Your task to perform on an android device: empty trash in the gmail app Image 0: 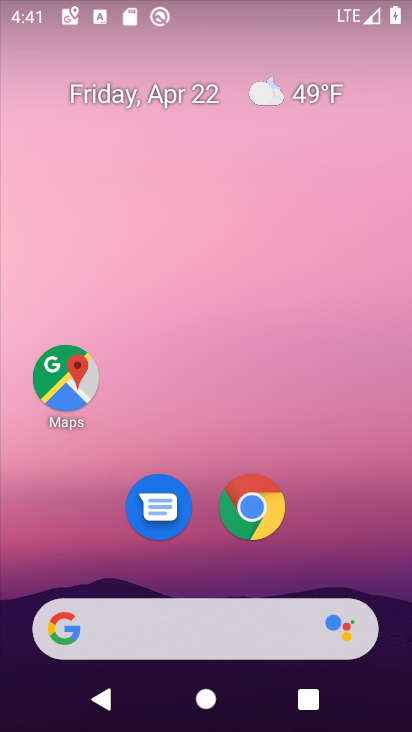
Step 0: drag from (380, 596) to (316, 8)
Your task to perform on an android device: empty trash in the gmail app Image 1: 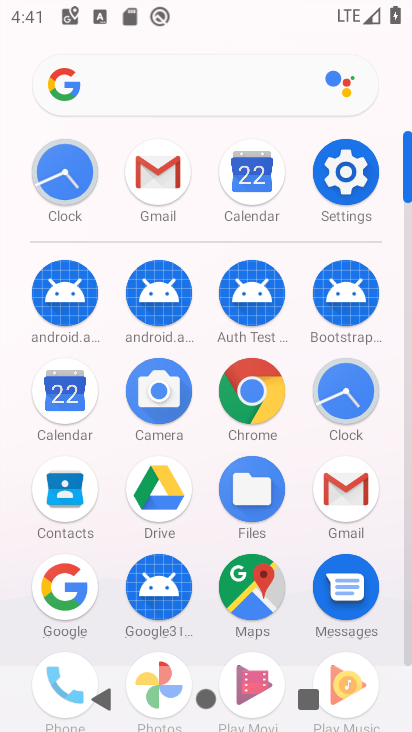
Step 1: click (408, 650)
Your task to perform on an android device: empty trash in the gmail app Image 2: 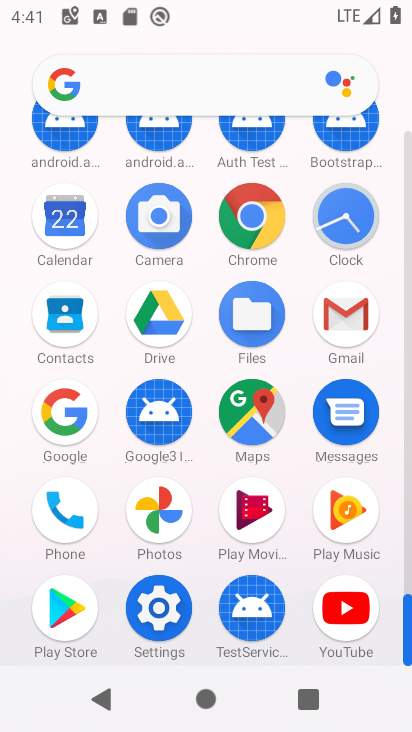
Step 2: click (349, 314)
Your task to perform on an android device: empty trash in the gmail app Image 3: 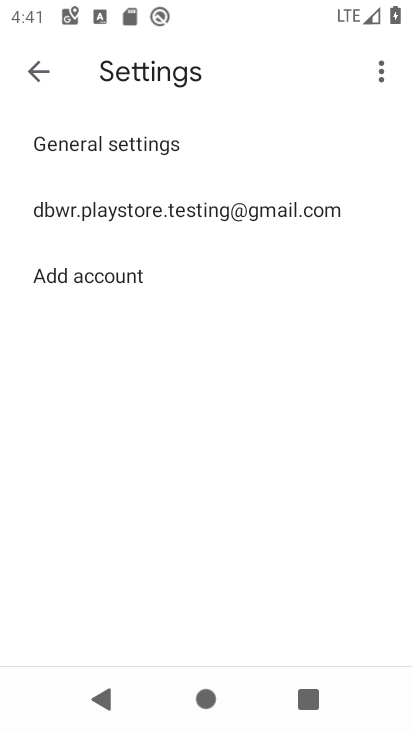
Step 3: press back button
Your task to perform on an android device: empty trash in the gmail app Image 4: 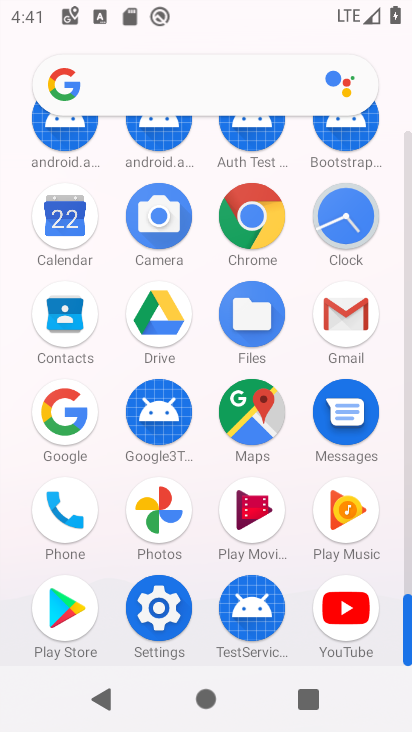
Step 4: click (353, 314)
Your task to perform on an android device: empty trash in the gmail app Image 5: 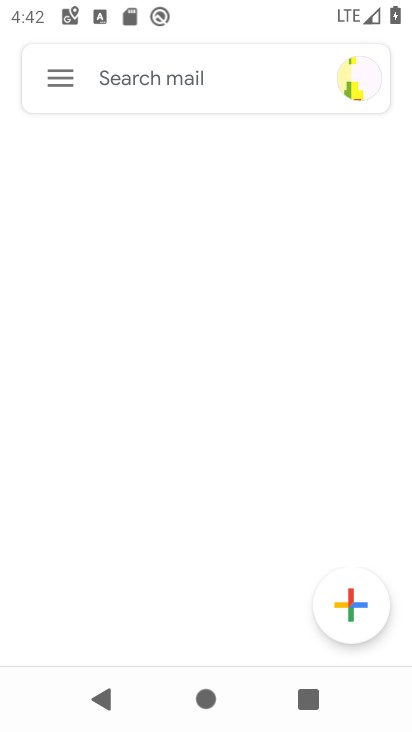
Step 5: click (60, 74)
Your task to perform on an android device: empty trash in the gmail app Image 6: 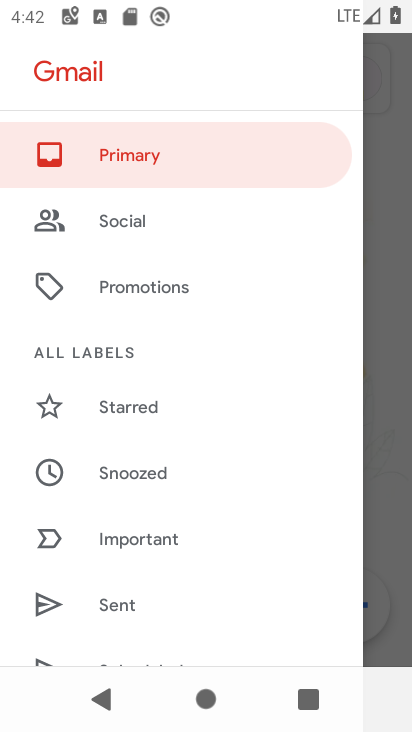
Step 6: drag from (246, 597) to (315, 189)
Your task to perform on an android device: empty trash in the gmail app Image 7: 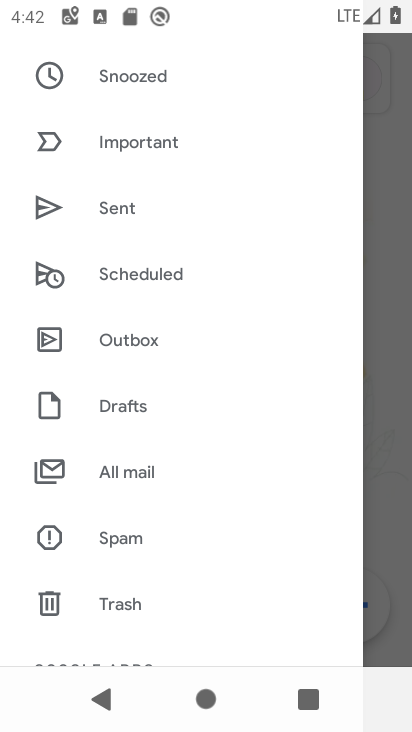
Step 7: click (99, 598)
Your task to perform on an android device: empty trash in the gmail app Image 8: 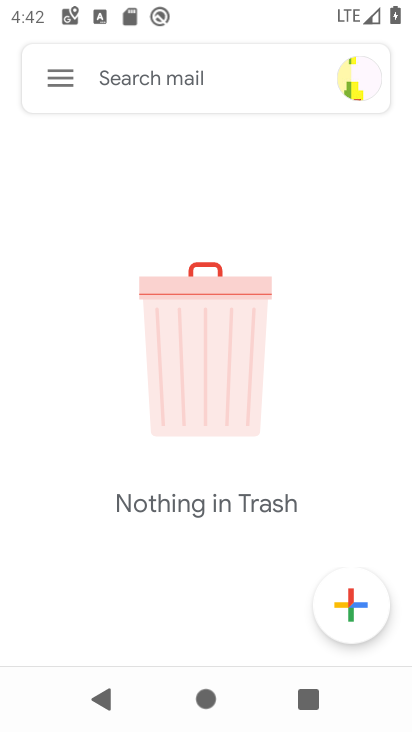
Step 8: task complete